Your task to perform on an android device: Search for Mexican restaurants on Maps Image 0: 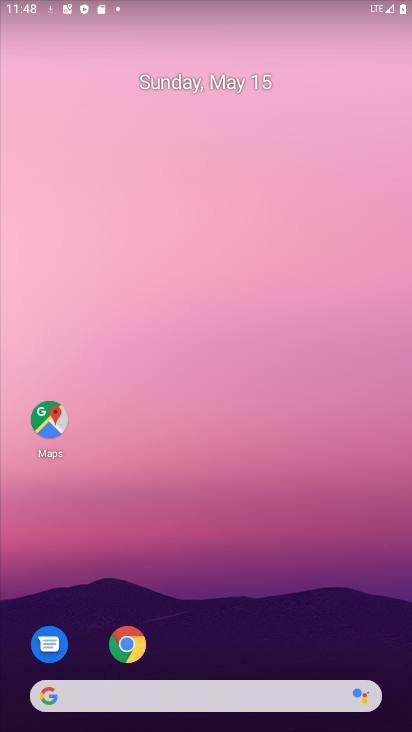
Step 0: drag from (209, 671) to (314, 219)
Your task to perform on an android device: Search for Mexican restaurants on Maps Image 1: 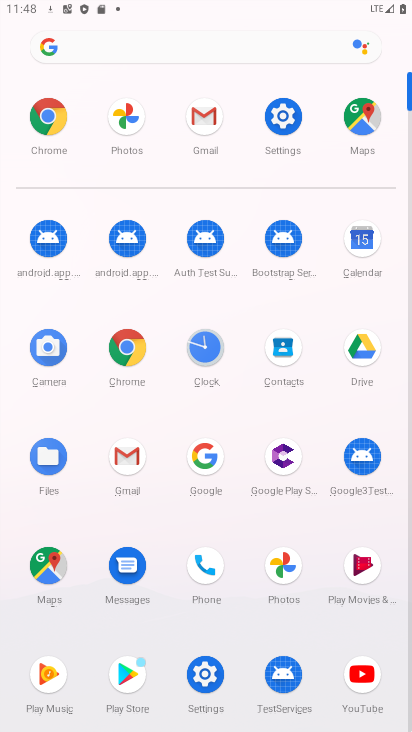
Step 1: click (59, 569)
Your task to perform on an android device: Search for Mexican restaurants on Maps Image 2: 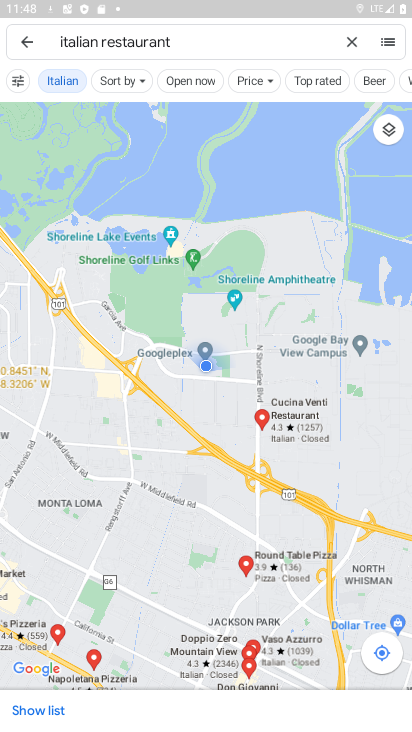
Step 2: click (353, 43)
Your task to perform on an android device: Search for Mexican restaurants on Maps Image 3: 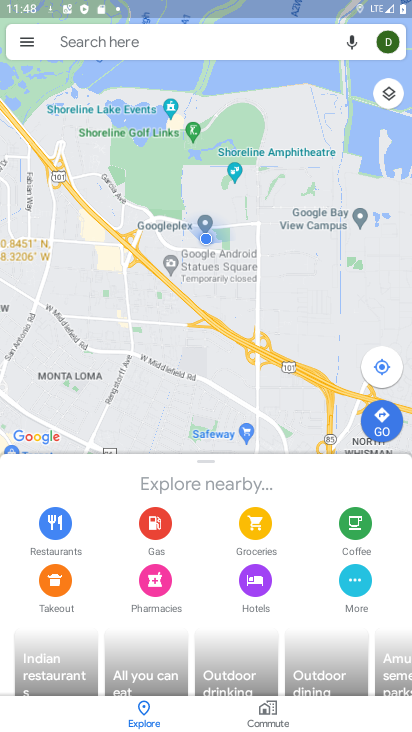
Step 3: click (184, 49)
Your task to perform on an android device: Search for Mexican restaurants on Maps Image 4: 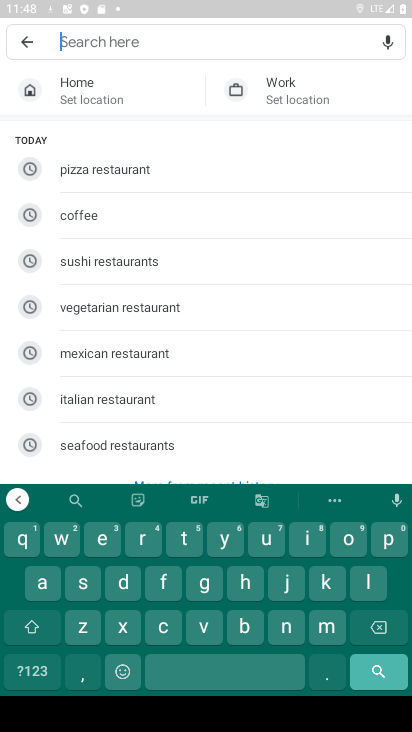
Step 4: click (326, 624)
Your task to perform on an android device: Search for Mexican restaurants on Maps Image 5: 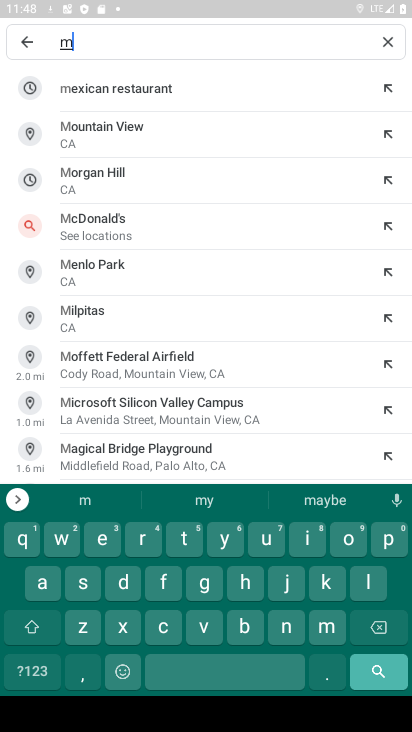
Step 5: click (145, 80)
Your task to perform on an android device: Search for Mexican restaurants on Maps Image 6: 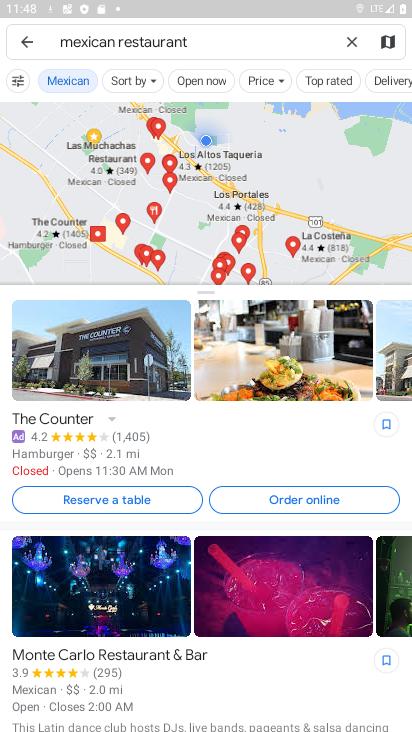
Step 6: click (189, 234)
Your task to perform on an android device: Search for Mexican restaurants on Maps Image 7: 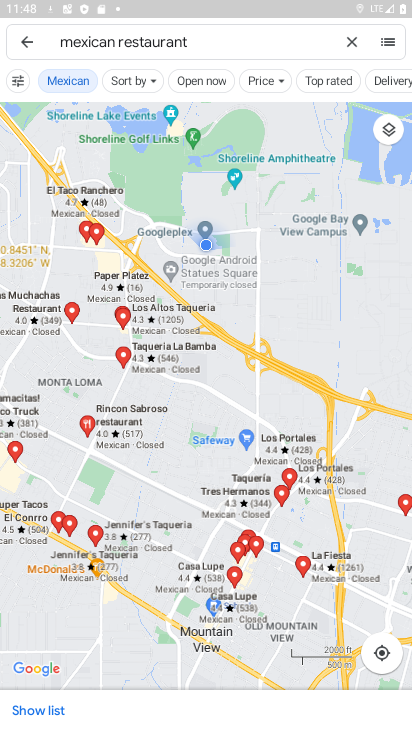
Step 7: task complete